Your task to perform on an android device: What's the weather going to be tomorrow? Image 0: 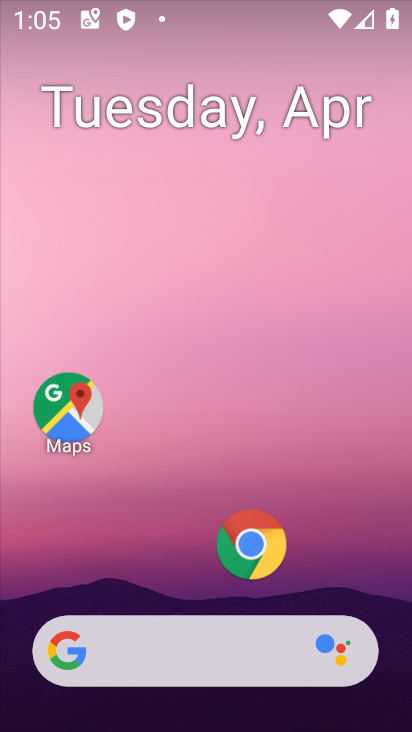
Step 0: drag from (157, 574) to (126, 268)
Your task to perform on an android device: What's the weather going to be tomorrow? Image 1: 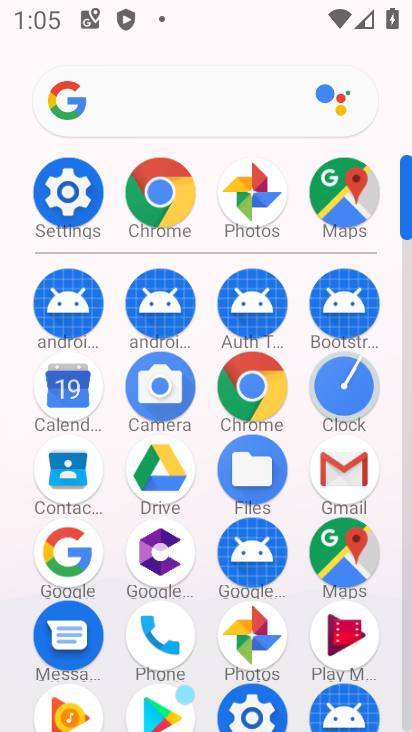
Step 1: click (255, 377)
Your task to perform on an android device: What's the weather going to be tomorrow? Image 2: 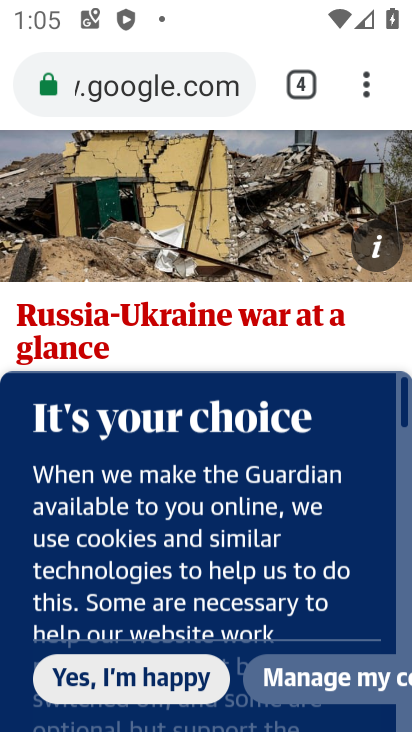
Step 2: click (361, 84)
Your task to perform on an android device: What's the weather going to be tomorrow? Image 3: 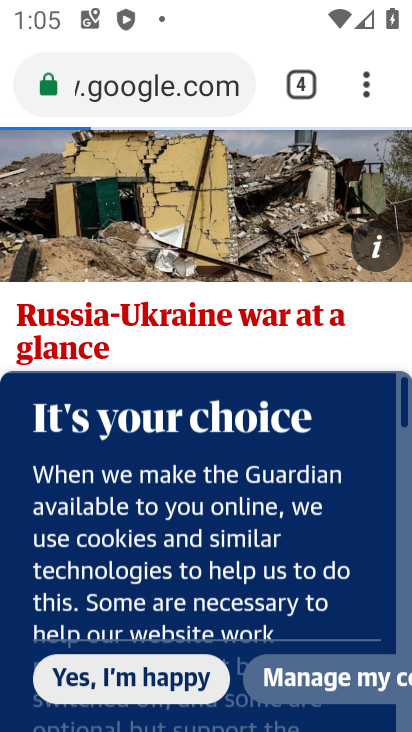
Step 3: click (362, 78)
Your task to perform on an android device: What's the weather going to be tomorrow? Image 4: 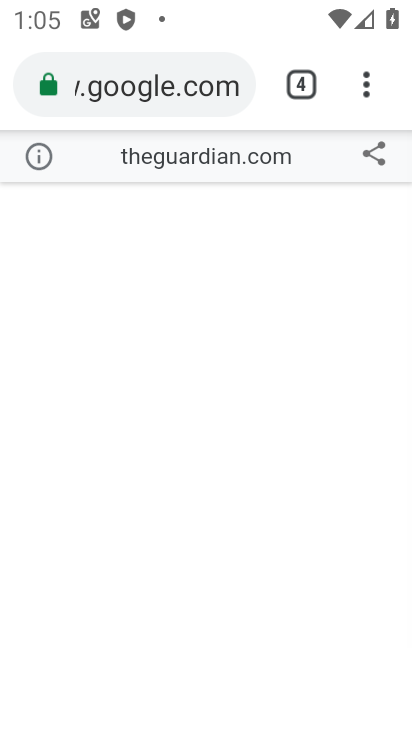
Step 4: click (364, 75)
Your task to perform on an android device: What's the weather going to be tomorrow? Image 5: 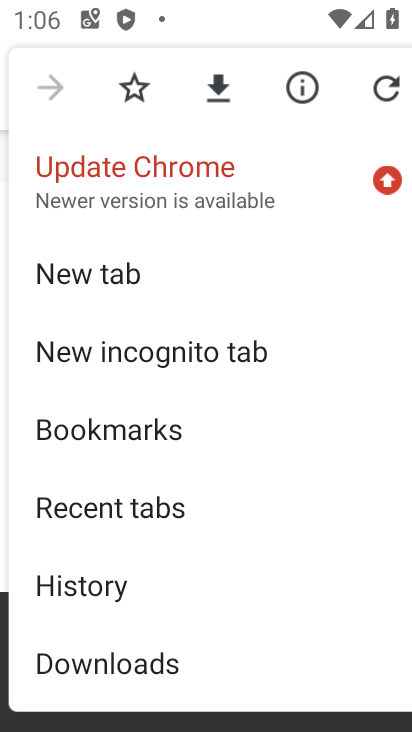
Step 5: click (135, 303)
Your task to perform on an android device: What's the weather going to be tomorrow? Image 6: 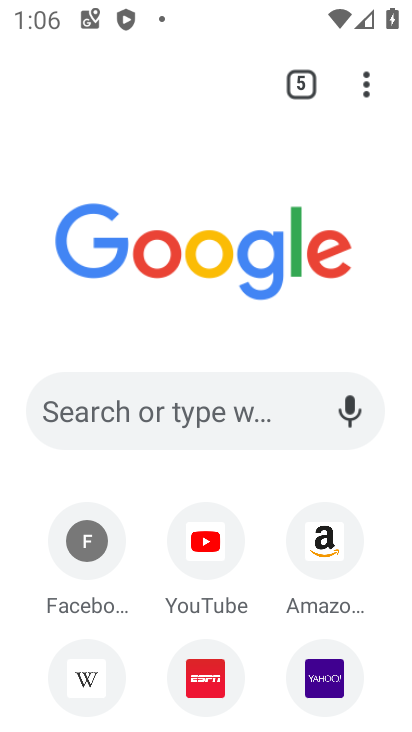
Step 6: click (223, 399)
Your task to perform on an android device: What's the weather going to be tomorrow? Image 7: 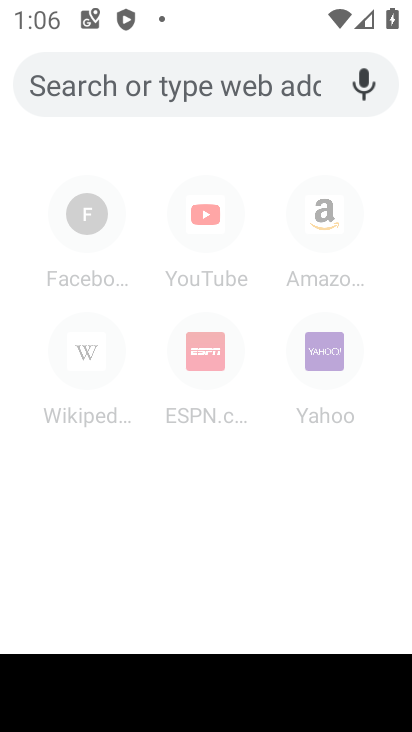
Step 7: drag from (121, 721) to (300, 713)
Your task to perform on an android device: What's the weather going to be tomorrow? Image 8: 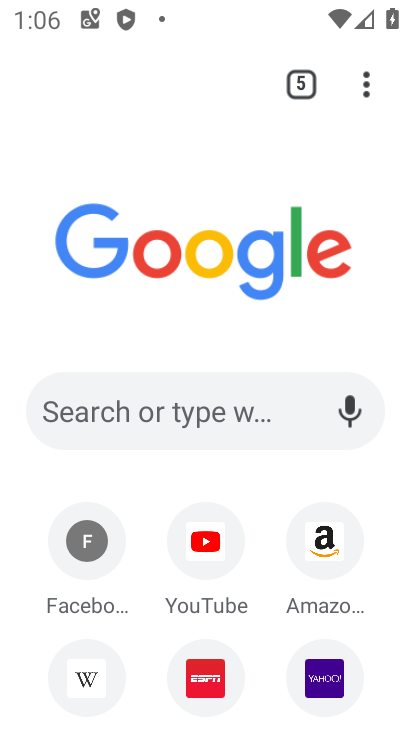
Step 8: click (248, 415)
Your task to perform on an android device: What's the weather going to be tomorrow? Image 9: 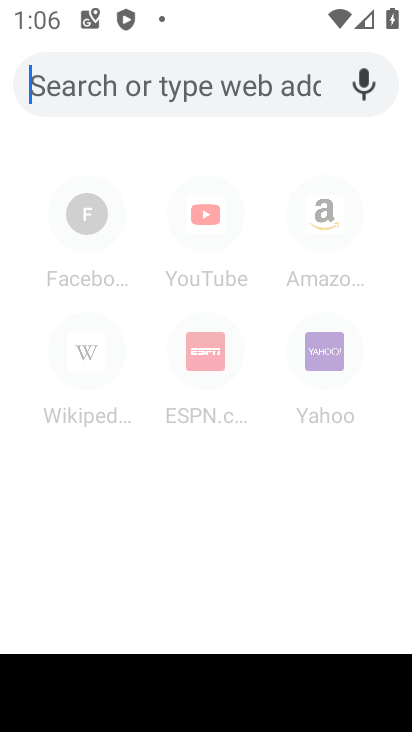
Step 9: type "What's the weather going to be tomorrow?"
Your task to perform on an android device: What's the weather going to be tomorrow? Image 10: 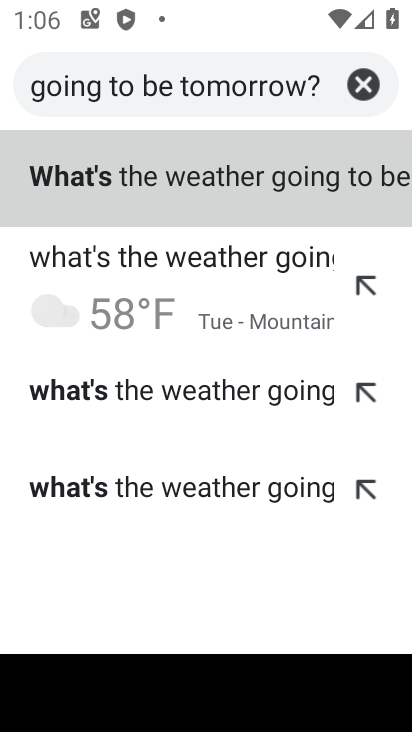
Step 10: click (208, 85)
Your task to perform on an android device: What's the weather going to be tomorrow? Image 11: 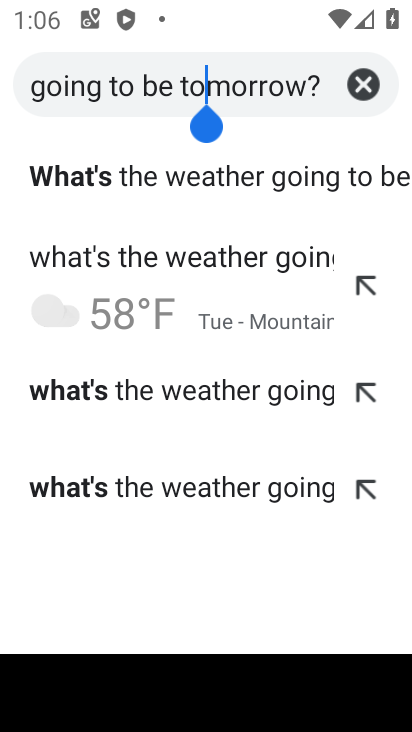
Step 11: click (264, 167)
Your task to perform on an android device: What's the weather going to be tomorrow? Image 12: 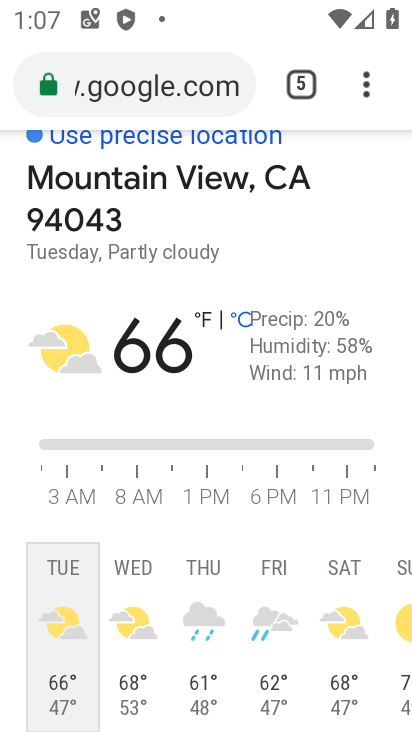
Step 12: task complete